Your task to perform on an android device: Show me popular videos on Youtube Image 0: 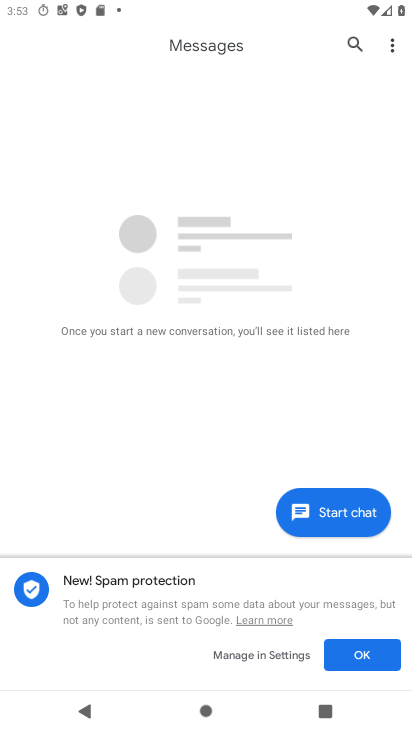
Step 0: press home button
Your task to perform on an android device: Show me popular videos on Youtube Image 1: 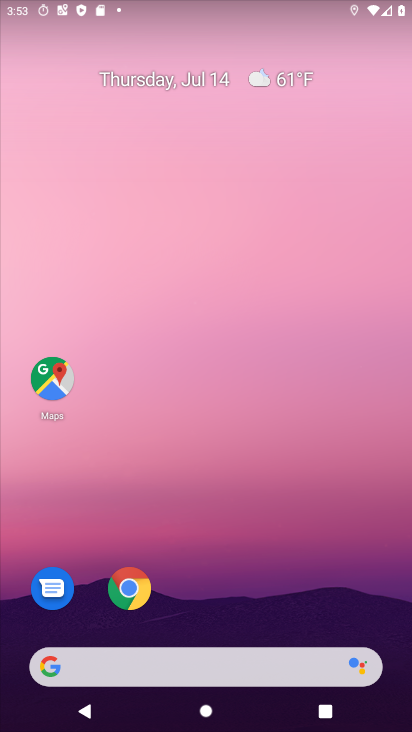
Step 1: drag from (173, 660) to (210, 205)
Your task to perform on an android device: Show me popular videos on Youtube Image 2: 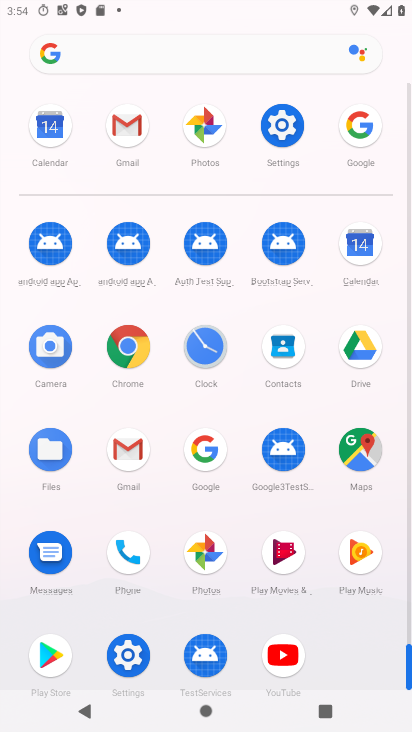
Step 2: click (282, 655)
Your task to perform on an android device: Show me popular videos on Youtube Image 3: 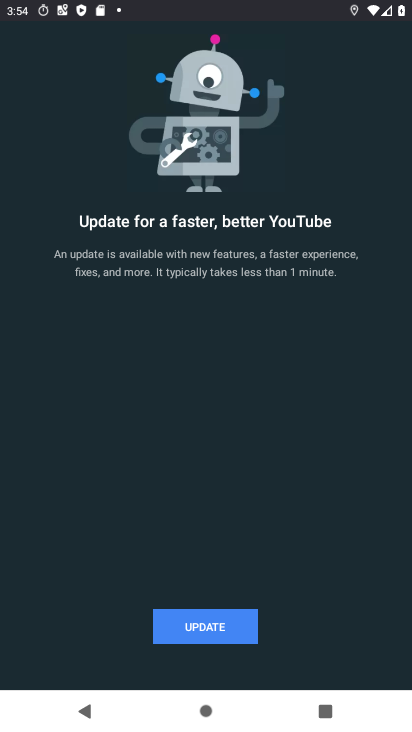
Step 3: click (210, 624)
Your task to perform on an android device: Show me popular videos on Youtube Image 4: 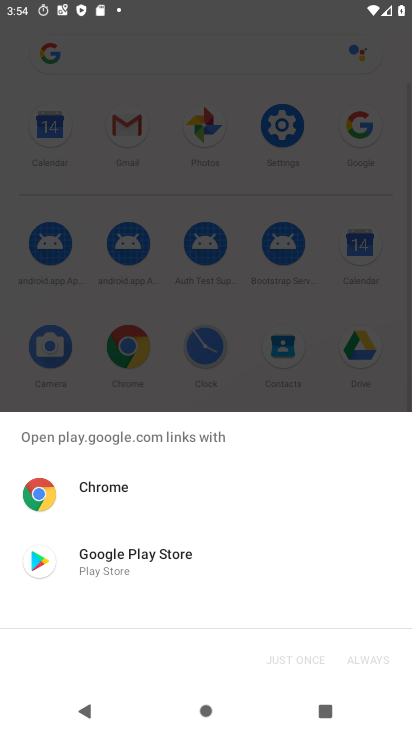
Step 4: click (162, 563)
Your task to perform on an android device: Show me popular videos on Youtube Image 5: 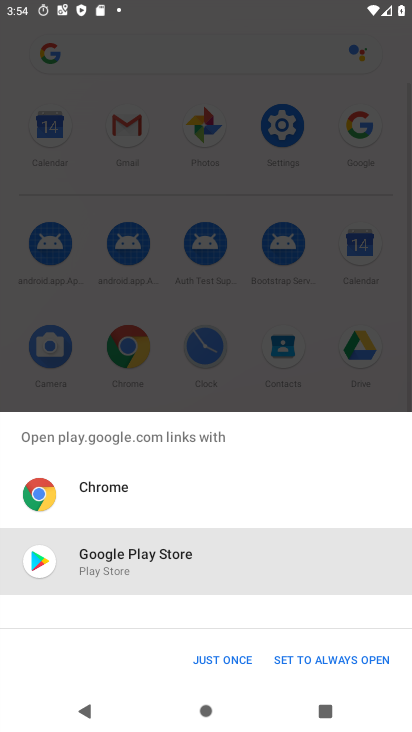
Step 5: click (214, 664)
Your task to perform on an android device: Show me popular videos on Youtube Image 6: 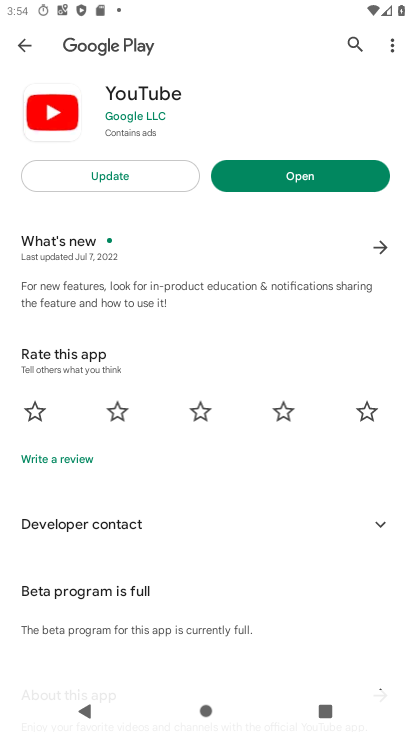
Step 6: click (126, 174)
Your task to perform on an android device: Show me popular videos on Youtube Image 7: 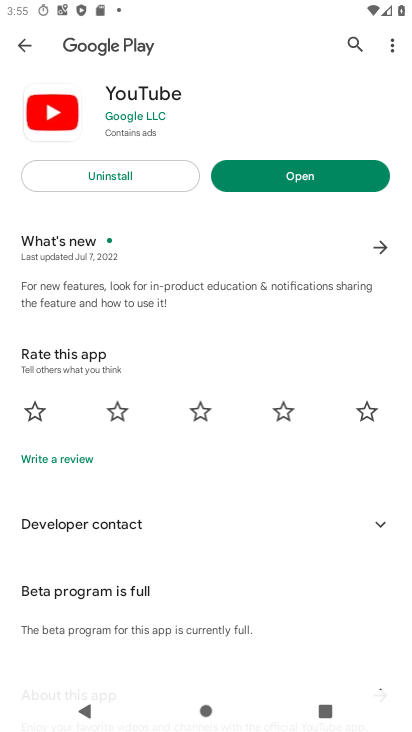
Step 7: click (266, 174)
Your task to perform on an android device: Show me popular videos on Youtube Image 8: 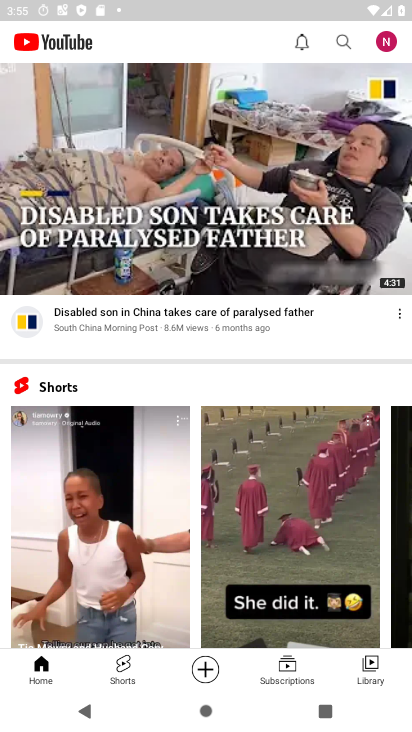
Step 8: click (344, 39)
Your task to perform on an android device: Show me popular videos on Youtube Image 9: 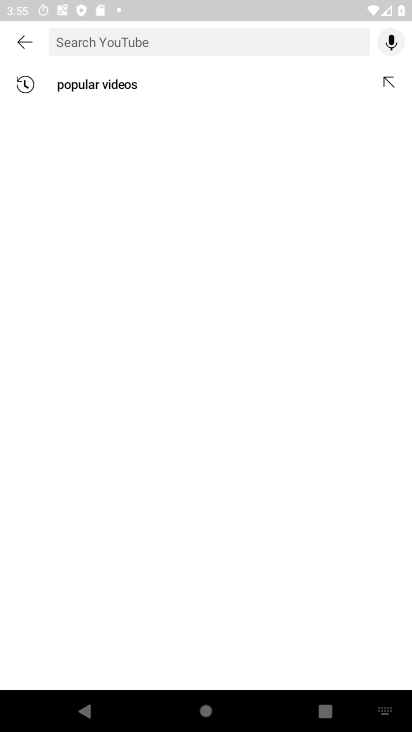
Step 9: click (121, 83)
Your task to perform on an android device: Show me popular videos on Youtube Image 10: 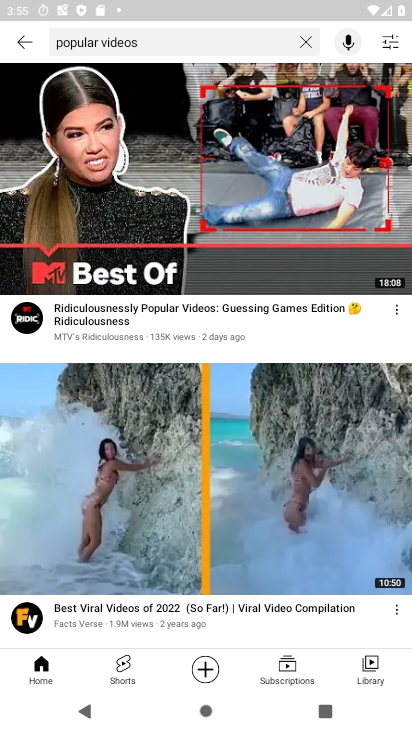
Step 10: task complete